Your task to perform on an android device: turn off javascript in the chrome app Image 0: 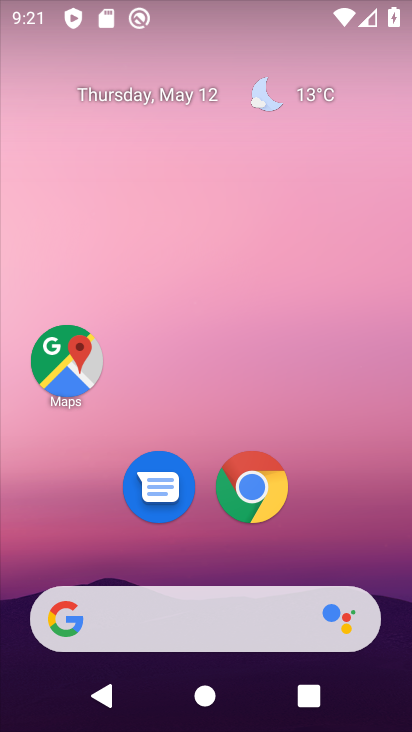
Step 0: click (244, 471)
Your task to perform on an android device: turn off javascript in the chrome app Image 1: 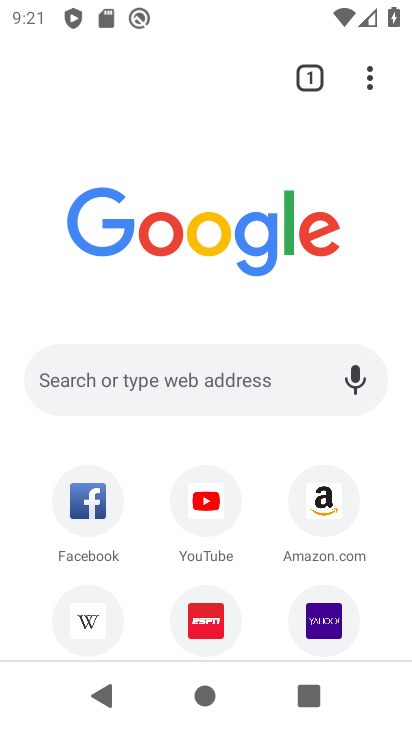
Step 1: click (370, 73)
Your task to perform on an android device: turn off javascript in the chrome app Image 2: 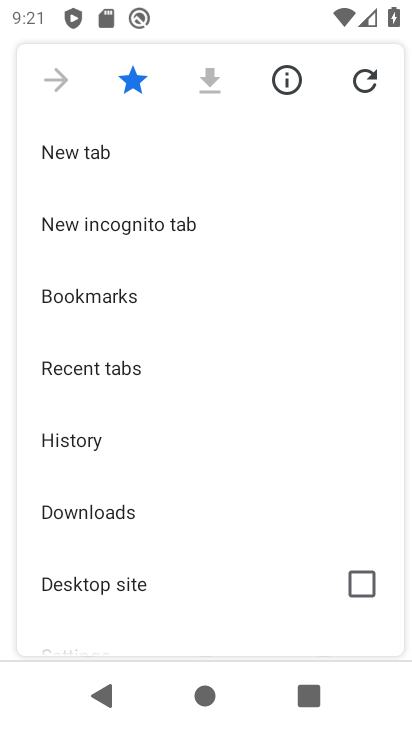
Step 2: drag from (196, 524) to (208, 24)
Your task to perform on an android device: turn off javascript in the chrome app Image 3: 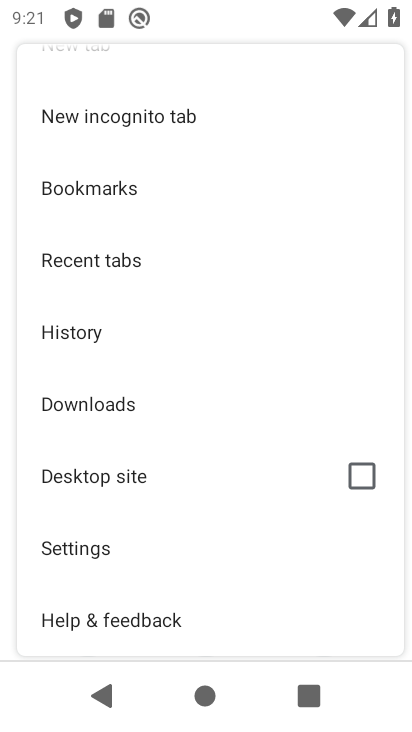
Step 3: click (126, 545)
Your task to perform on an android device: turn off javascript in the chrome app Image 4: 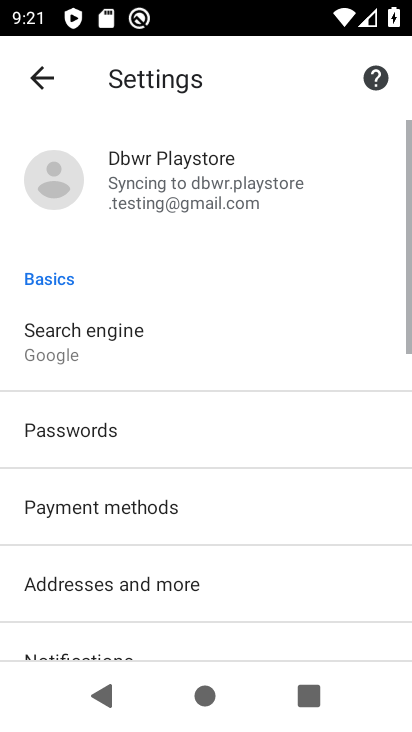
Step 4: drag from (178, 548) to (224, 132)
Your task to perform on an android device: turn off javascript in the chrome app Image 5: 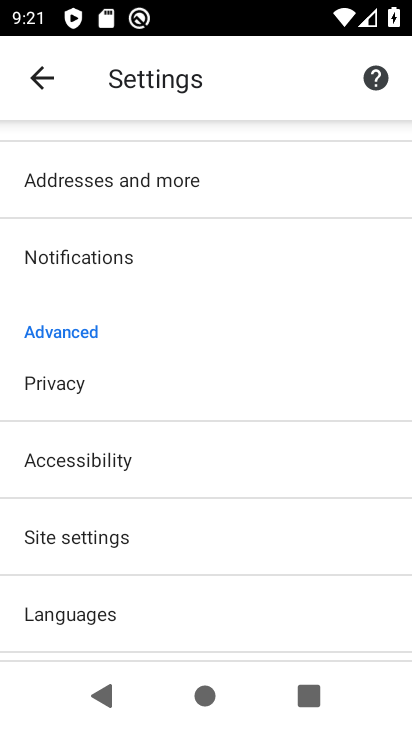
Step 5: click (155, 537)
Your task to perform on an android device: turn off javascript in the chrome app Image 6: 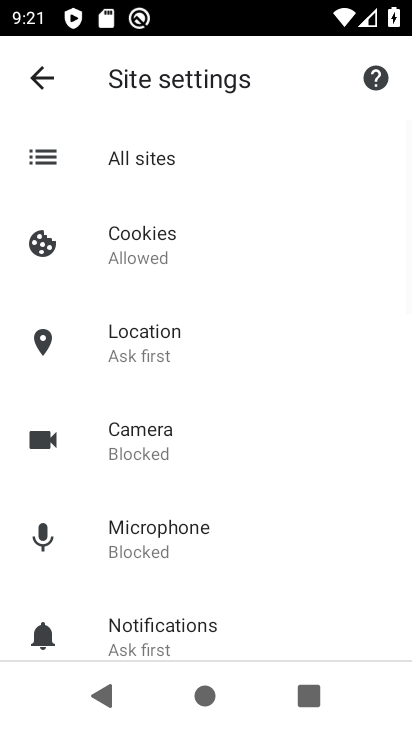
Step 6: drag from (210, 570) to (231, 191)
Your task to perform on an android device: turn off javascript in the chrome app Image 7: 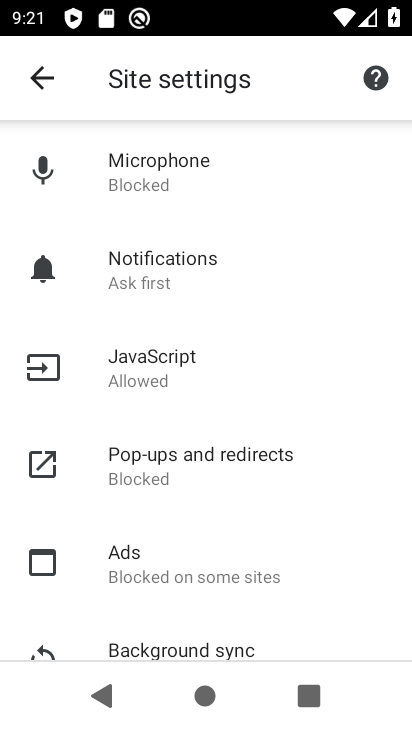
Step 7: click (183, 345)
Your task to perform on an android device: turn off javascript in the chrome app Image 8: 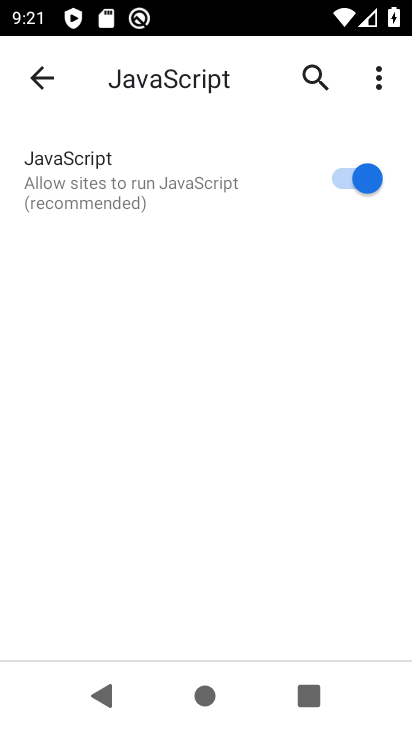
Step 8: click (340, 178)
Your task to perform on an android device: turn off javascript in the chrome app Image 9: 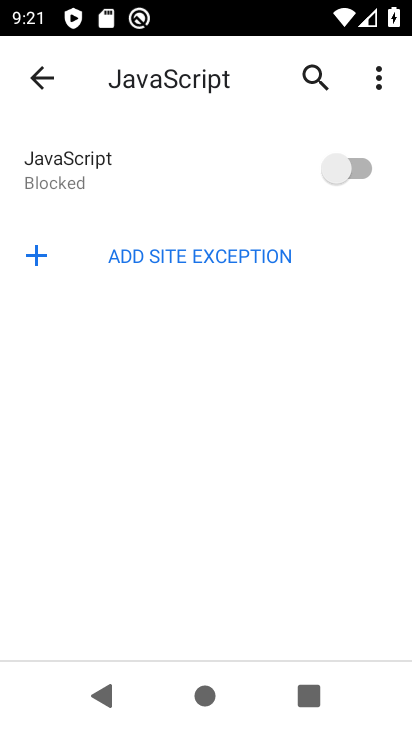
Step 9: task complete